Your task to perform on an android device: turn on bluetooth scan Image 0: 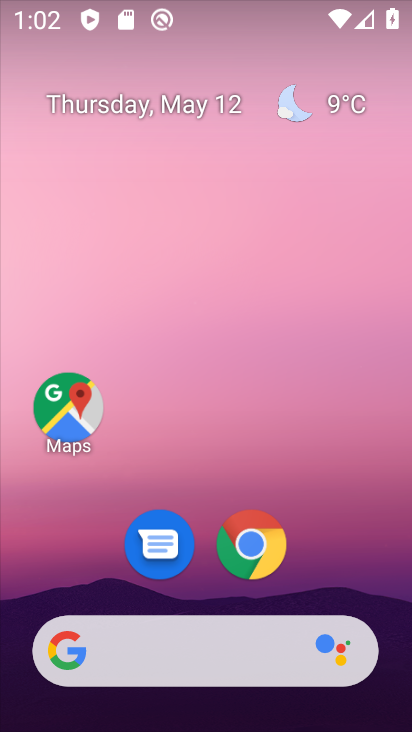
Step 0: drag from (335, 493) to (267, 12)
Your task to perform on an android device: turn on bluetooth scan Image 1: 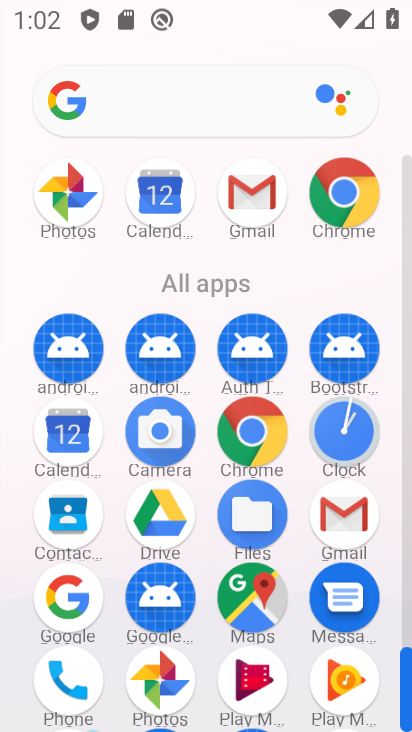
Step 1: drag from (19, 562) to (17, 268)
Your task to perform on an android device: turn on bluetooth scan Image 2: 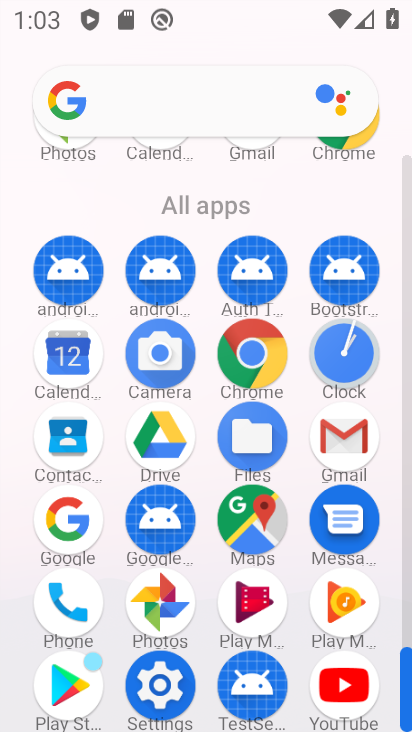
Step 2: click (161, 685)
Your task to perform on an android device: turn on bluetooth scan Image 3: 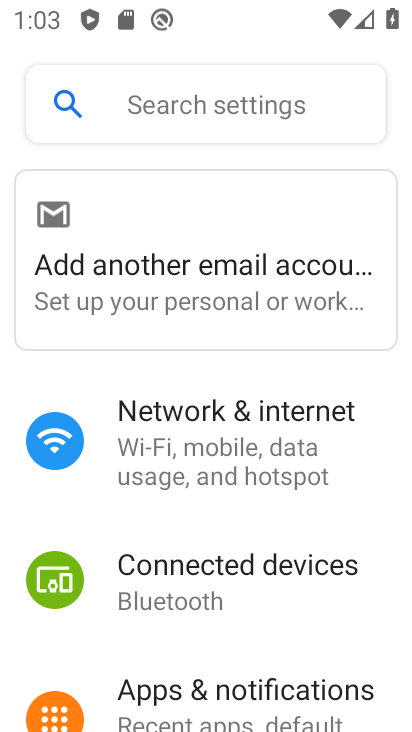
Step 3: drag from (212, 551) to (239, 136)
Your task to perform on an android device: turn on bluetooth scan Image 4: 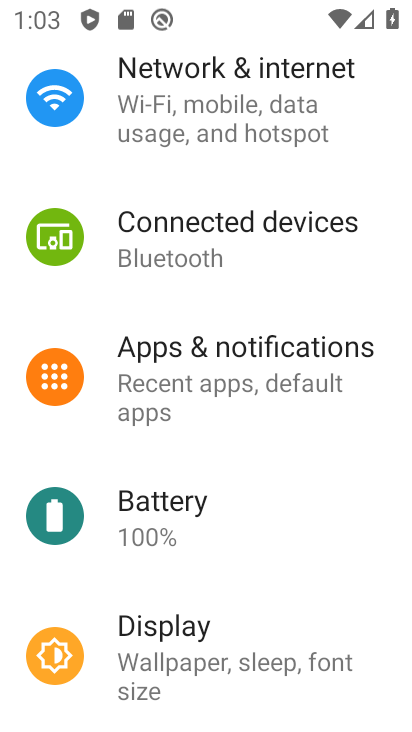
Step 4: drag from (303, 630) to (288, 191)
Your task to perform on an android device: turn on bluetooth scan Image 5: 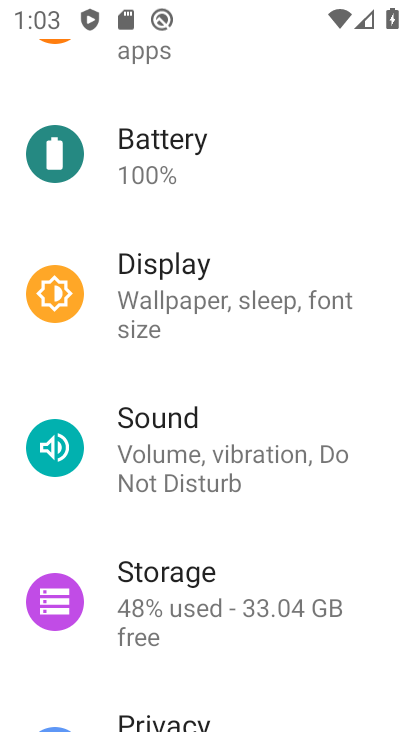
Step 5: drag from (267, 609) to (289, 131)
Your task to perform on an android device: turn on bluetooth scan Image 6: 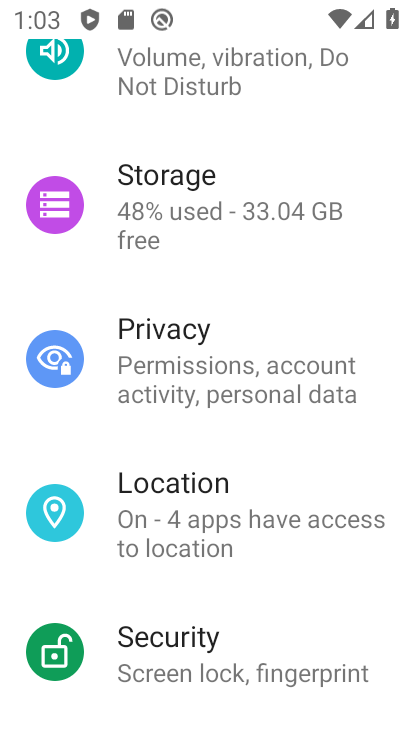
Step 6: click (213, 499)
Your task to perform on an android device: turn on bluetooth scan Image 7: 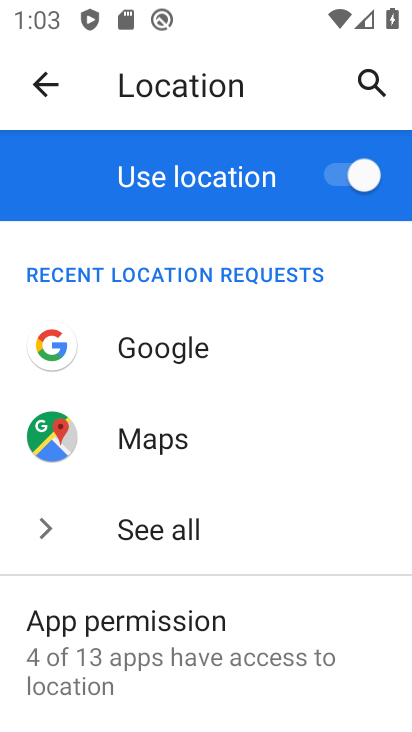
Step 7: drag from (225, 539) to (249, 142)
Your task to perform on an android device: turn on bluetooth scan Image 8: 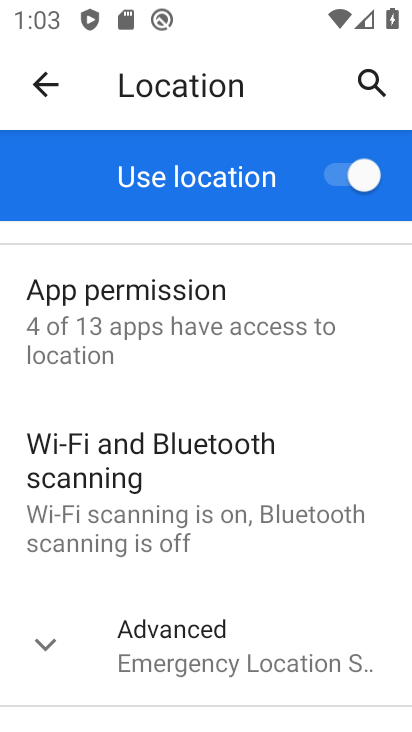
Step 8: click (168, 467)
Your task to perform on an android device: turn on bluetooth scan Image 9: 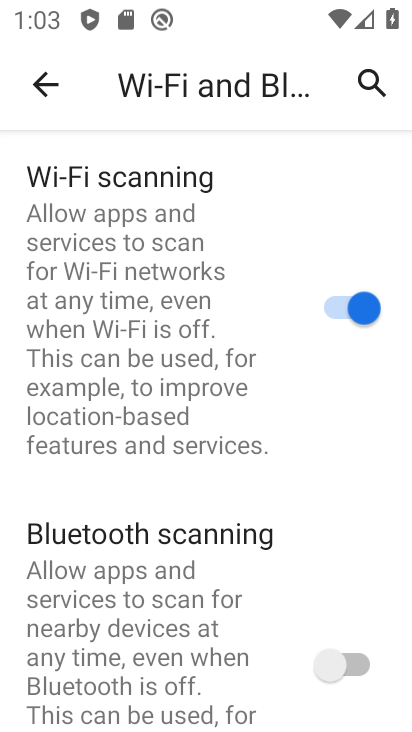
Step 9: click (332, 660)
Your task to perform on an android device: turn on bluetooth scan Image 10: 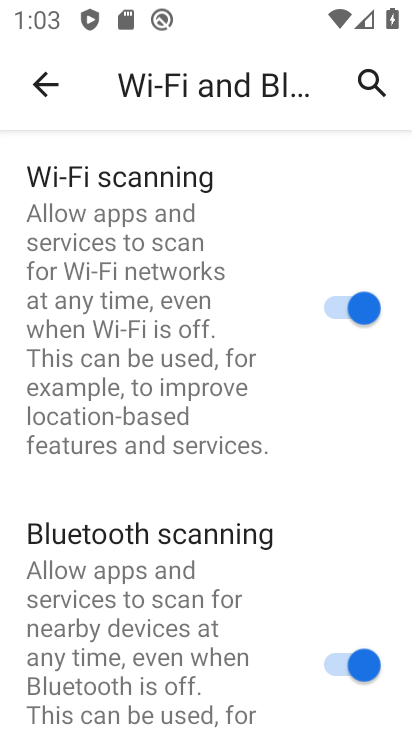
Step 10: task complete